Your task to perform on an android device: turn pop-ups on in chrome Image 0: 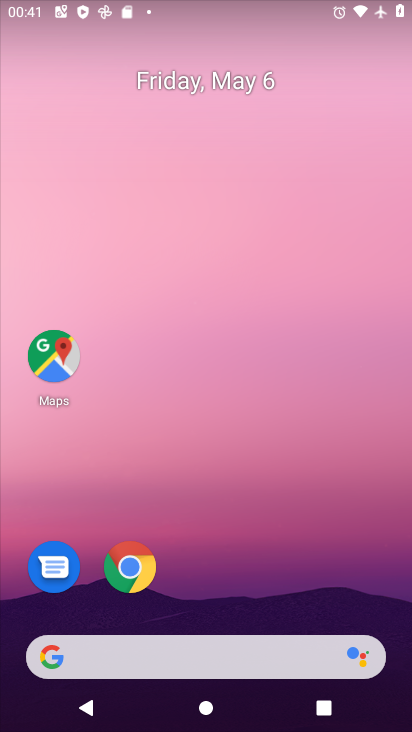
Step 0: click (127, 565)
Your task to perform on an android device: turn pop-ups on in chrome Image 1: 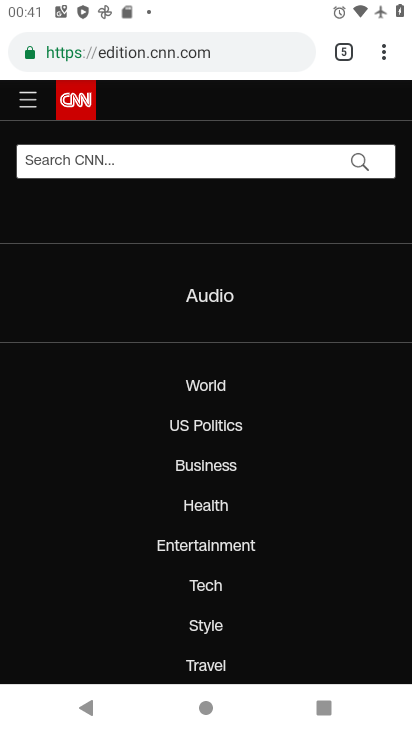
Step 1: click (381, 57)
Your task to perform on an android device: turn pop-ups on in chrome Image 2: 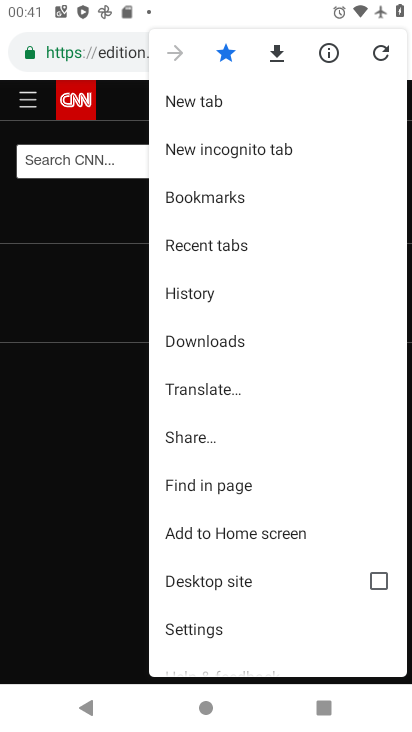
Step 2: click (253, 631)
Your task to perform on an android device: turn pop-ups on in chrome Image 3: 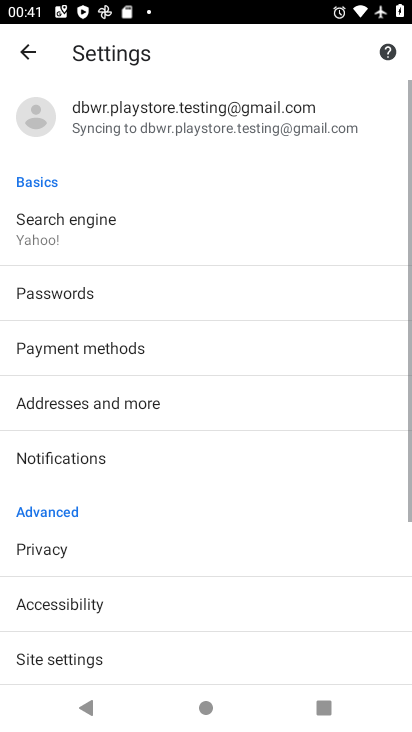
Step 3: drag from (210, 628) to (207, 316)
Your task to perform on an android device: turn pop-ups on in chrome Image 4: 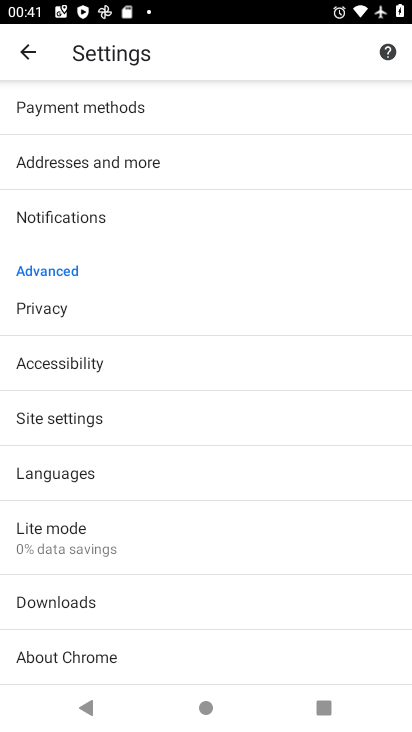
Step 4: drag from (191, 565) to (240, 366)
Your task to perform on an android device: turn pop-ups on in chrome Image 5: 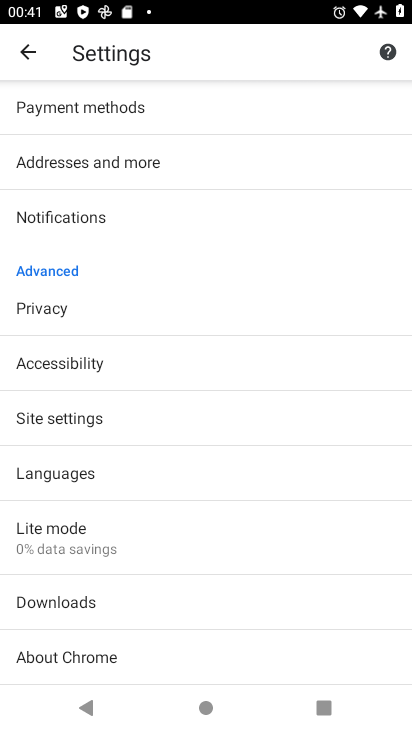
Step 5: drag from (192, 580) to (198, 370)
Your task to perform on an android device: turn pop-ups on in chrome Image 6: 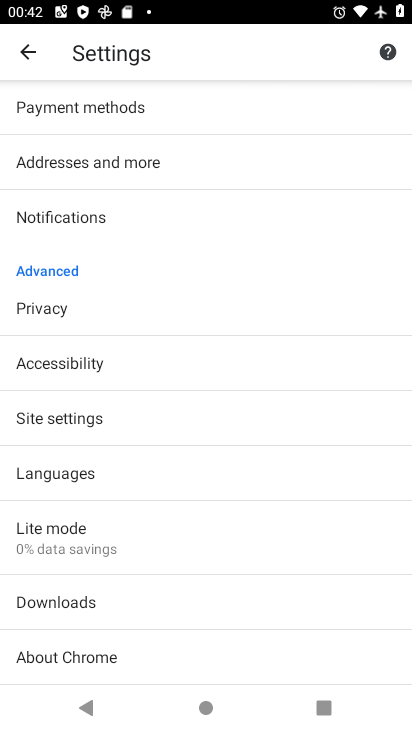
Step 6: drag from (188, 576) to (201, 311)
Your task to perform on an android device: turn pop-ups on in chrome Image 7: 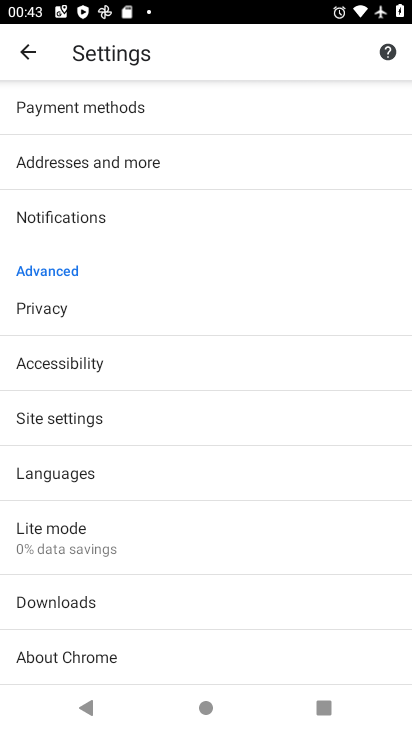
Step 7: click (140, 428)
Your task to perform on an android device: turn pop-ups on in chrome Image 8: 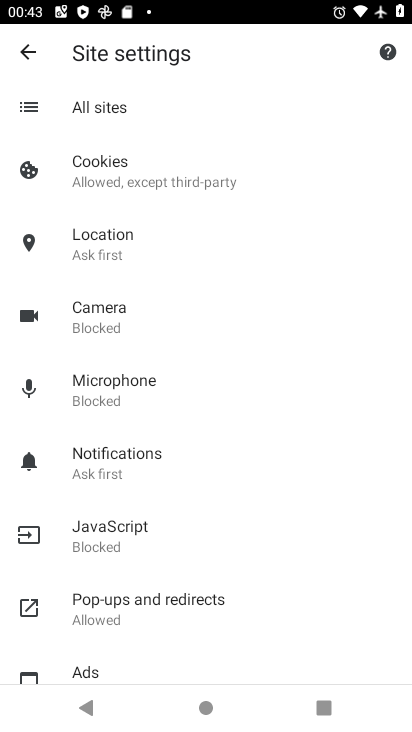
Step 8: click (136, 611)
Your task to perform on an android device: turn pop-ups on in chrome Image 9: 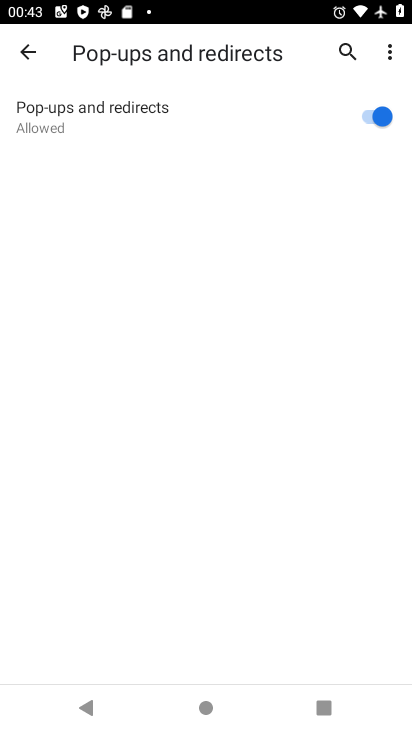
Step 9: click (392, 50)
Your task to perform on an android device: turn pop-ups on in chrome Image 10: 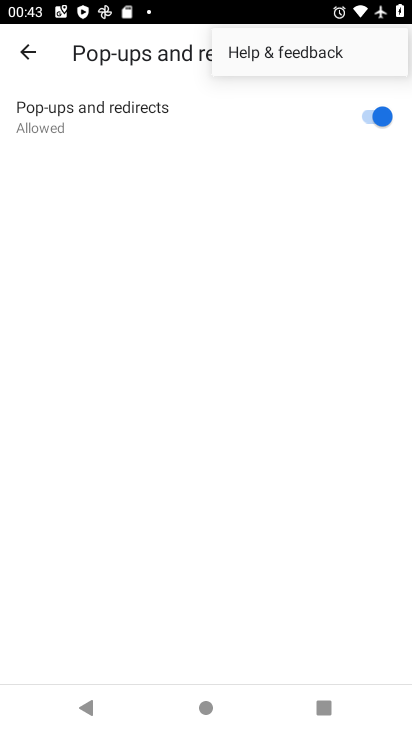
Step 10: press home button
Your task to perform on an android device: turn pop-ups on in chrome Image 11: 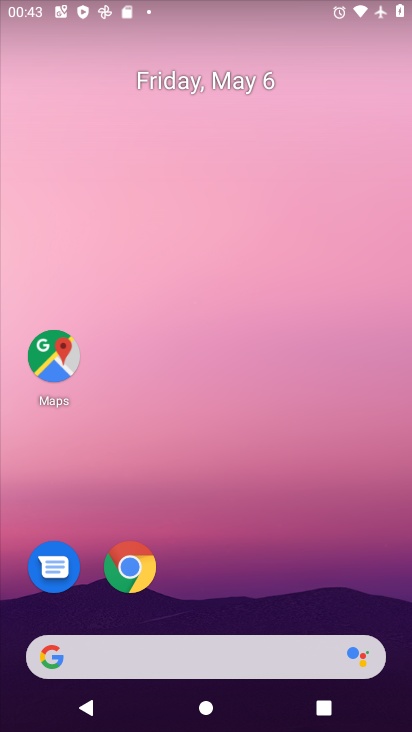
Step 11: click (148, 565)
Your task to perform on an android device: turn pop-ups on in chrome Image 12: 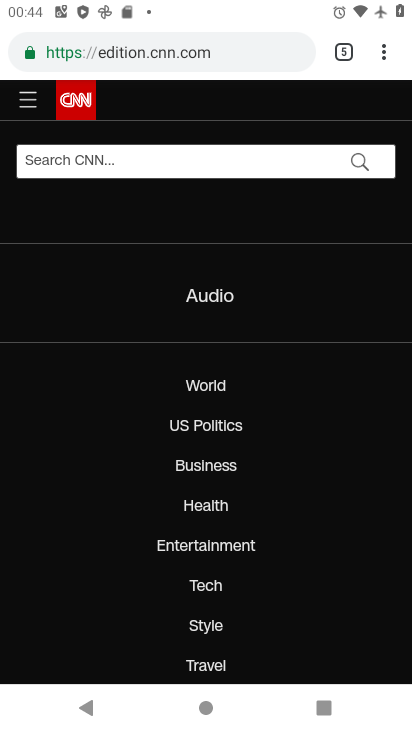
Step 12: click (379, 61)
Your task to perform on an android device: turn pop-ups on in chrome Image 13: 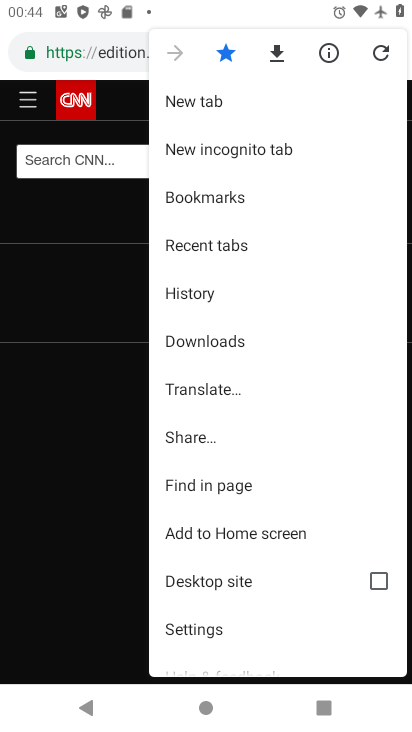
Step 13: drag from (251, 539) to (317, 309)
Your task to perform on an android device: turn pop-ups on in chrome Image 14: 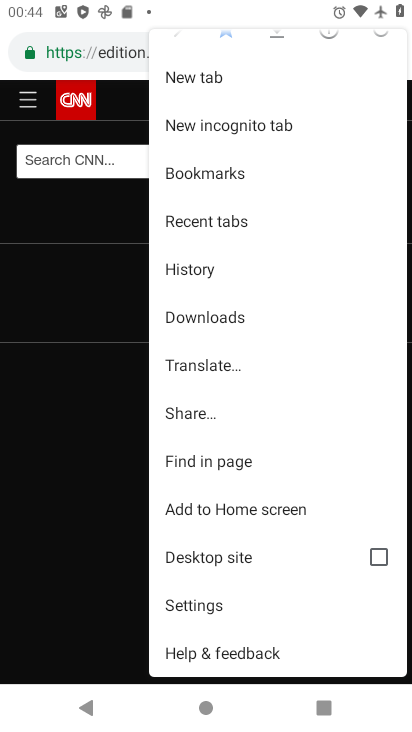
Step 14: drag from (262, 265) to (285, 488)
Your task to perform on an android device: turn pop-ups on in chrome Image 15: 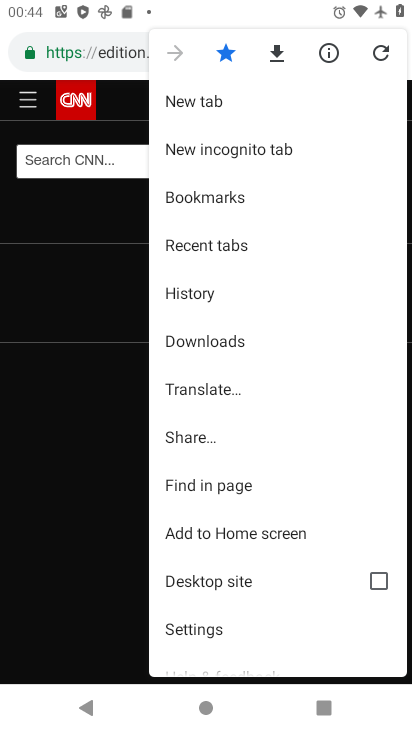
Step 15: drag from (280, 636) to (270, 315)
Your task to perform on an android device: turn pop-ups on in chrome Image 16: 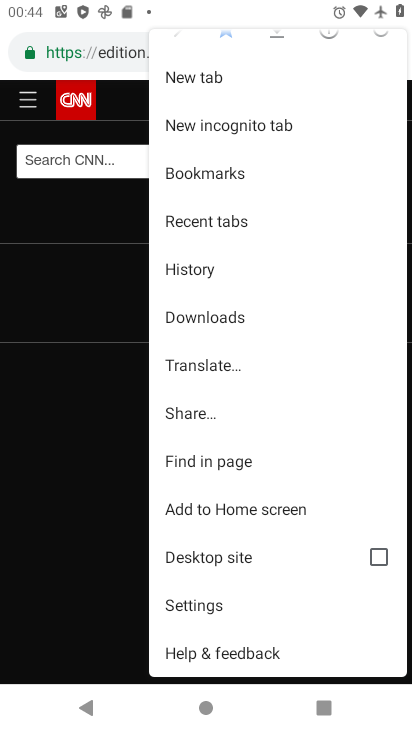
Step 16: click (225, 611)
Your task to perform on an android device: turn pop-ups on in chrome Image 17: 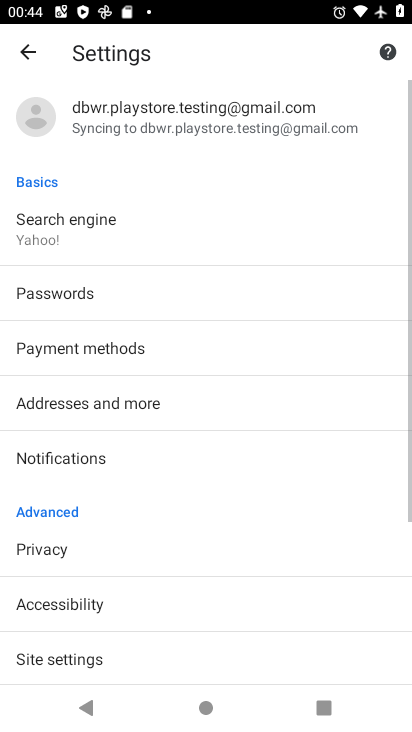
Step 17: drag from (157, 618) to (192, 402)
Your task to perform on an android device: turn pop-ups on in chrome Image 18: 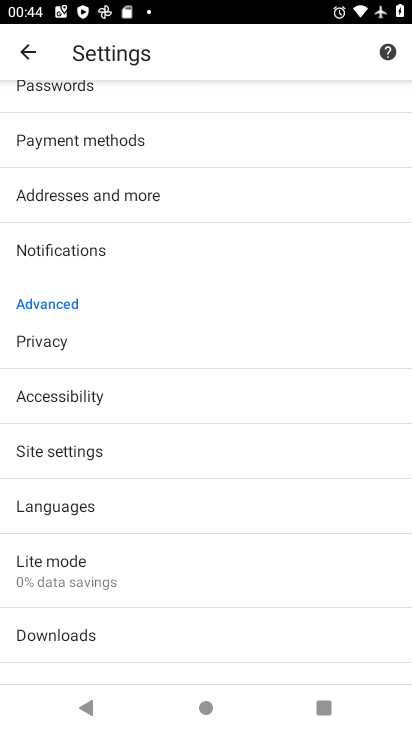
Step 18: click (114, 454)
Your task to perform on an android device: turn pop-ups on in chrome Image 19: 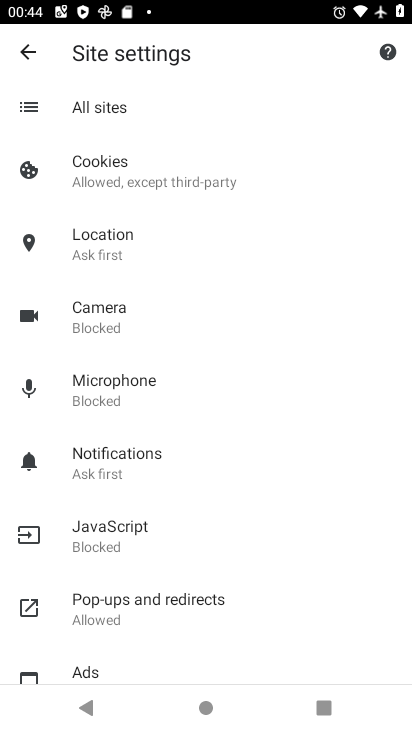
Step 19: drag from (201, 594) to (213, 375)
Your task to perform on an android device: turn pop-ups on in chrome Image 20: 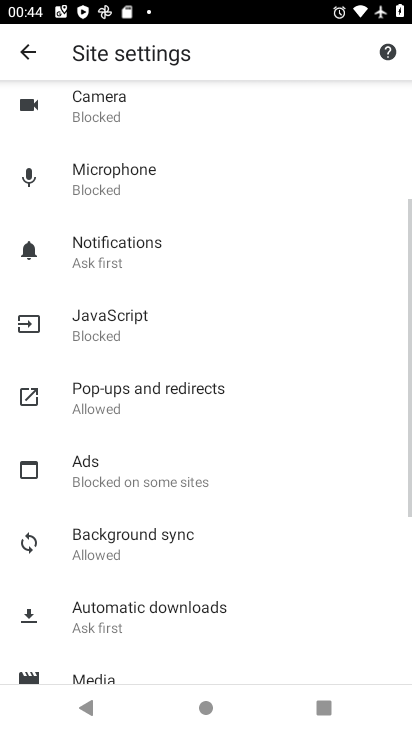
Step 20: click (189, 388)
Your task to perform on an android device: turn pop-ups on in chrome Image 21: 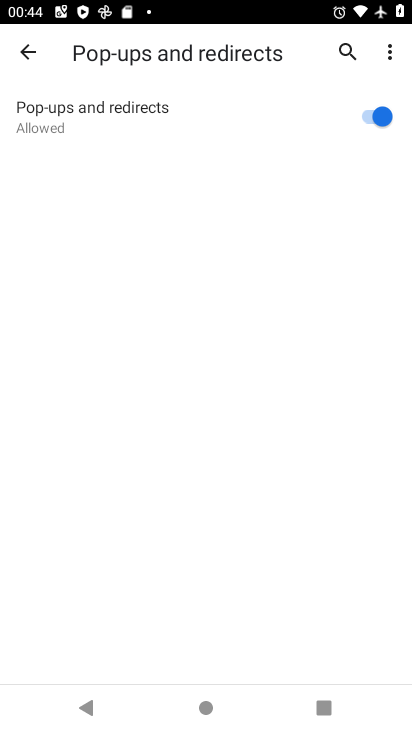
Step 21: task complete